Your task to perform on an android device: open a bookmark in the chrome app Image 0: 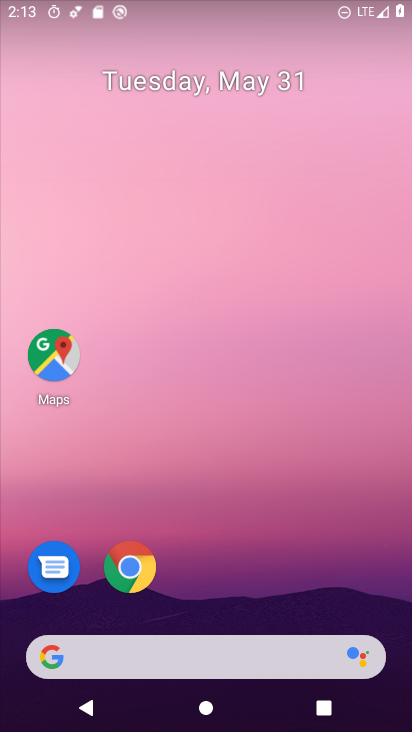
Step 0: click (142, 564)
Your task to perform on an android device: open a bookmark in the chrome app Image 1: 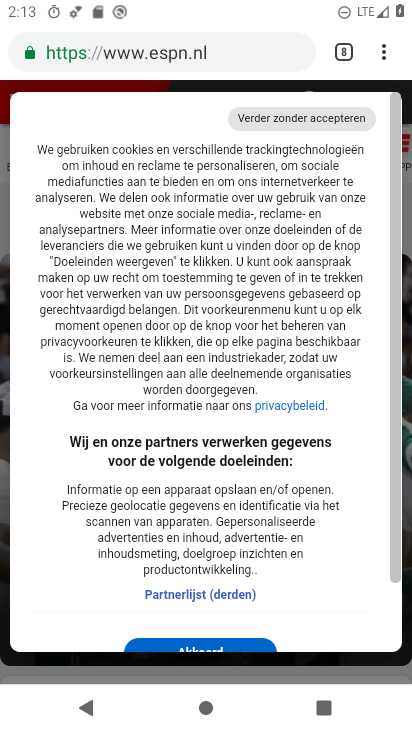
Step 1: click (384, 41)
Your task to perform on an android device: open a bookmark in the chrome app Image 2: 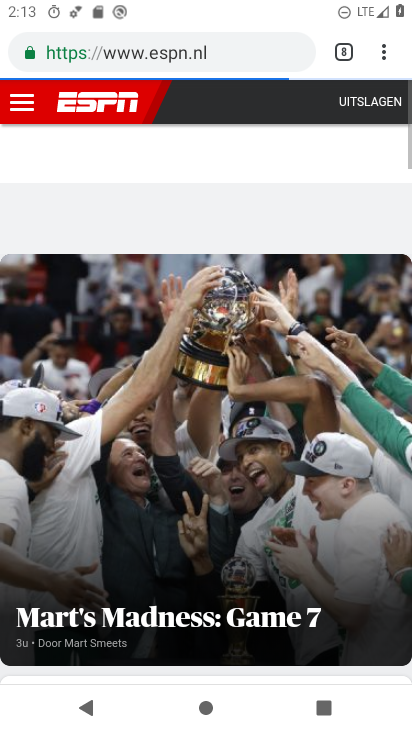
Step 2: task complete